Your task to perform on an android device: Show me popular videos on Youtube Image 0: 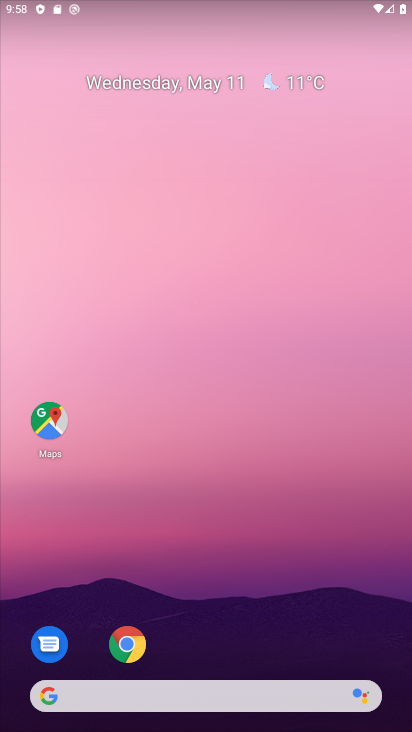
Step 0: drag from (301, 240) to (286, 2)
Your task to perform on an android device: Show me popular videos on Youtube Image 1: 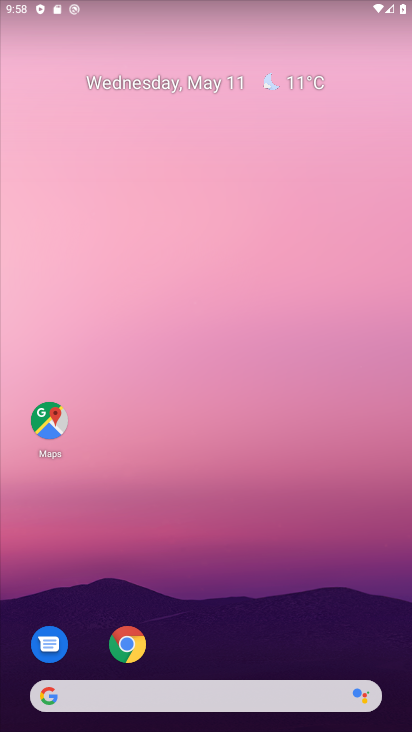
Step 1: drag from (321, 671) to (192, 31)
Your task to perform on an android device: Show me popular videos on Youtube Image 2: 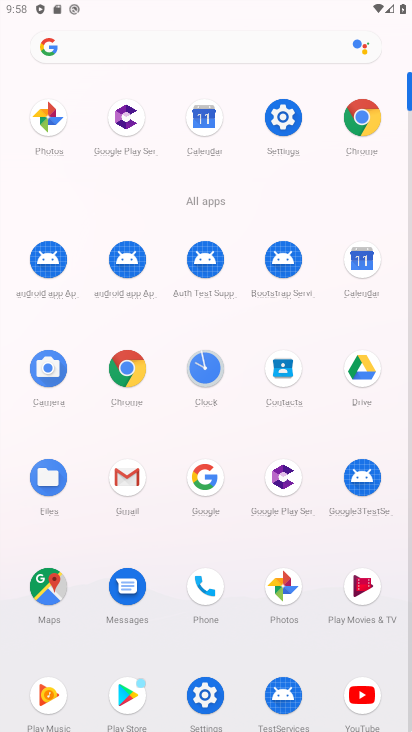
Step 2: click (367, 692)
Your task to perform on an android device: Show me popular videos on Youtube Image 3: 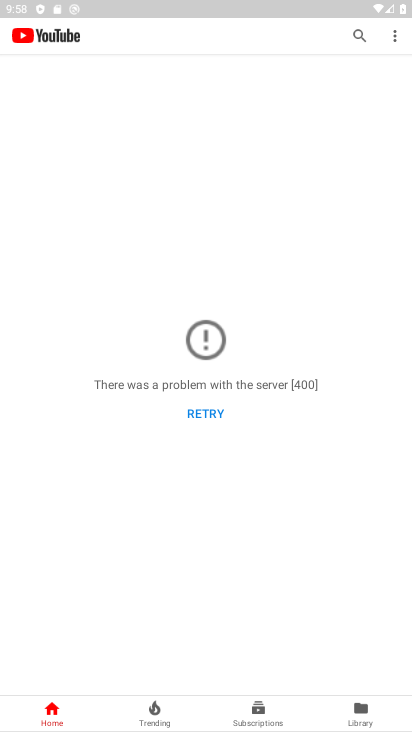
Step 3: task complete